Your task to perform on an android device: Turn off the flashlight Image 0: 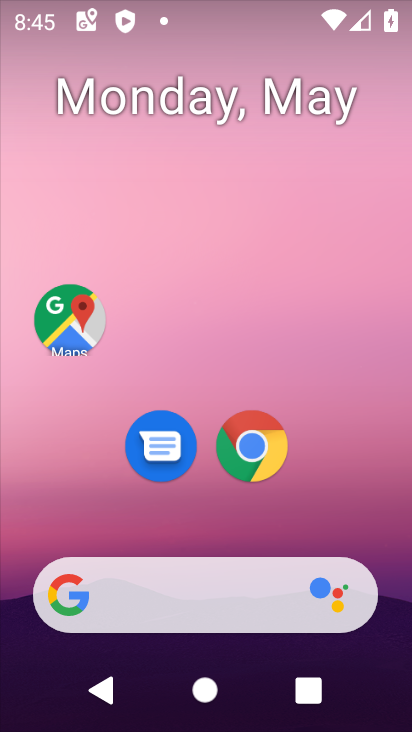
Step 0: press home button
Your task to perform on an android device: Turn off the flashlight Image 1: 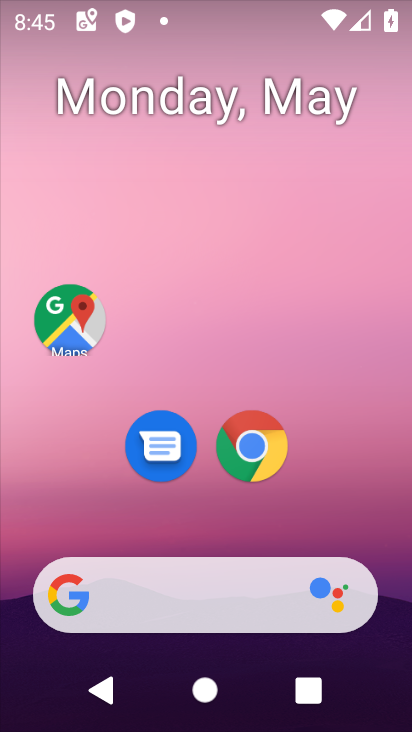
Step 1: drag from (206, 522) to (250, 71)
Your task to perform on an android device: Turn off the flashlight Image 2: 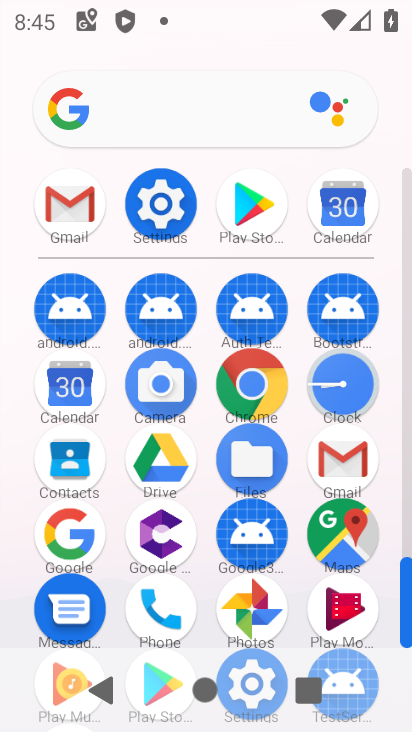
Step 2: click (155, 195)
Your task to perform on an android device: Turn off the flashlight Image 3: 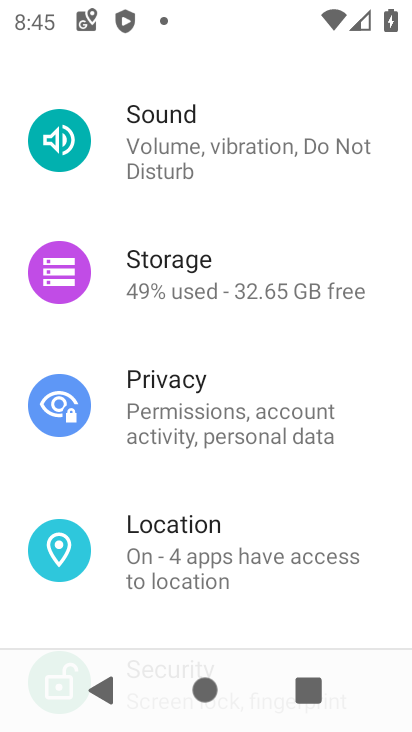
Step 3: drag from (221, 105) to (327, 558)
Your task to perform on an android device: Turn off the flashlight Image 4: 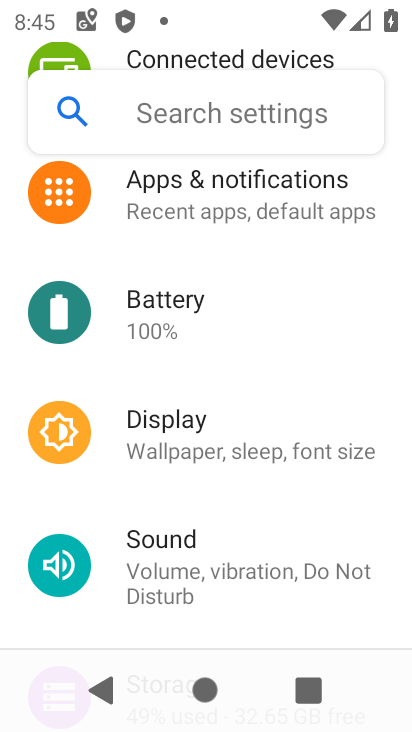
Step 4: click (177, 108)
Your task to perform on an android device: Turn off the flashlight Image 5: 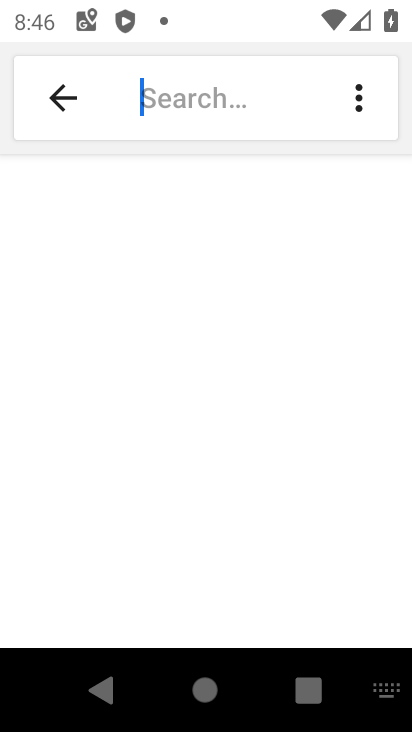
Step 5: click (159, 95)
Your task to perform on an android device: Turn off the flashlight Image 6: 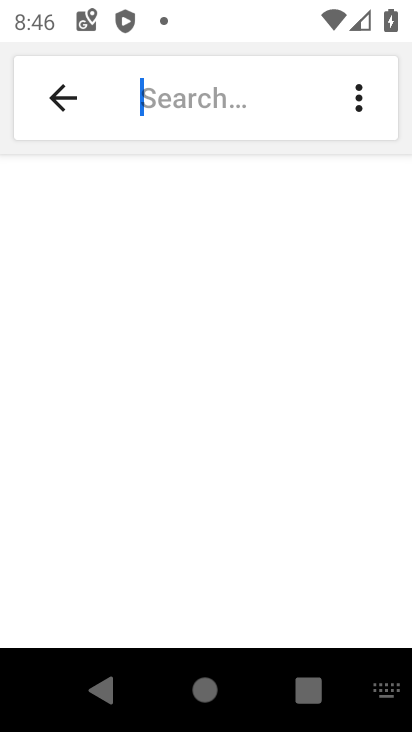
Step 6: type "flashlight"
Your task to perform on an android device: Turn off the flashlight Image 7: 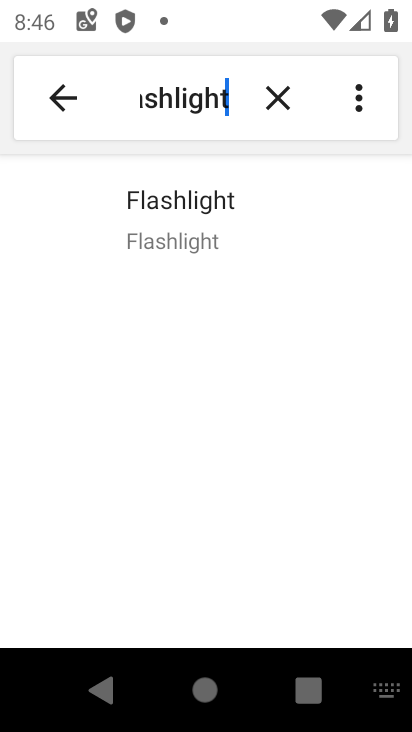
Step 7: click (241, 216)
Your task to perform on an android device: Turn off the flashlight Image 8: 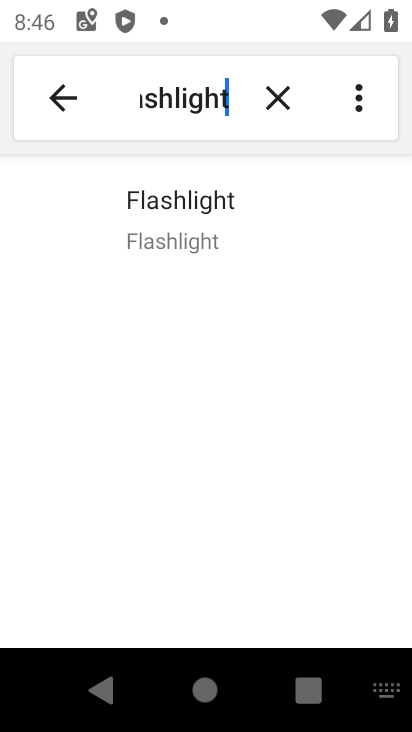
Step 8: click (236, 229)
Your task to perform on an android device: Turn off the flashlight Image 9: 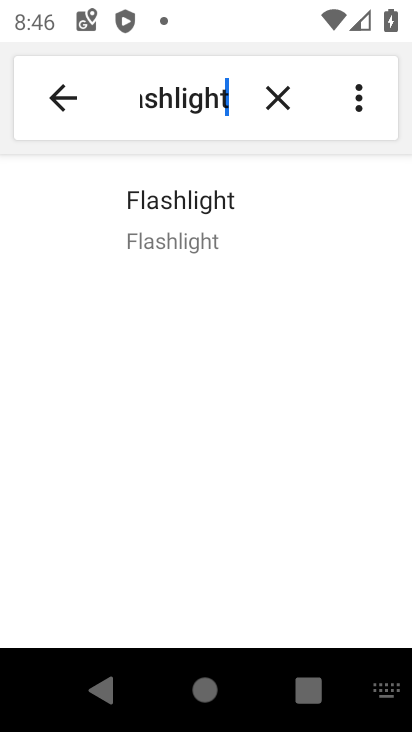
Step 9: task complete